Your task to perform on an android device: Is it going to rain tomorrow? Image 0: 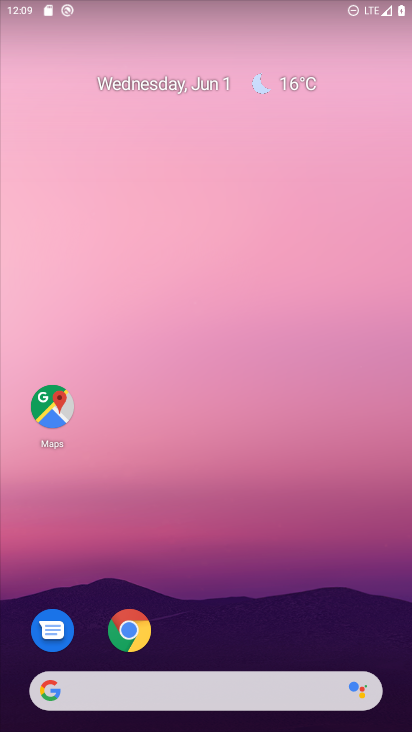
Step 0: click (290, 80)
Your task to perform on an android device: Is it going to rain tomorrow? Image 1: 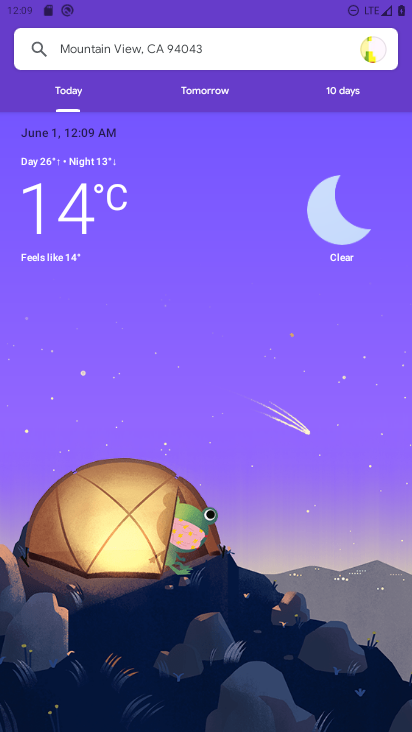
Step 1: click (226, 91)
Your task to perform on an android device: Is it going to rain tomorrow? Image 2: 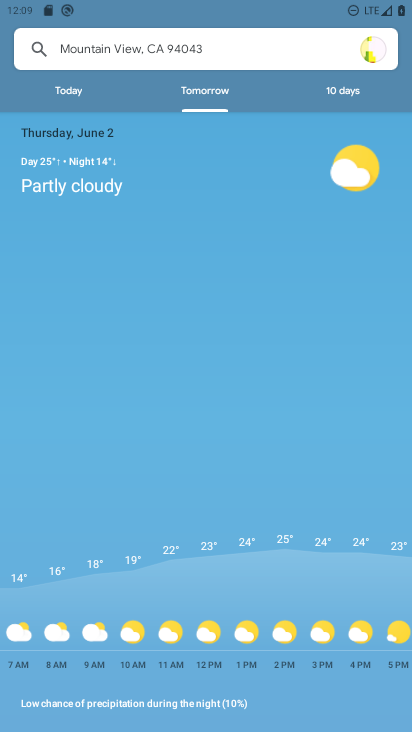
Step 2: task complete